Your task to perform on an android device: show emergency info Image 0: 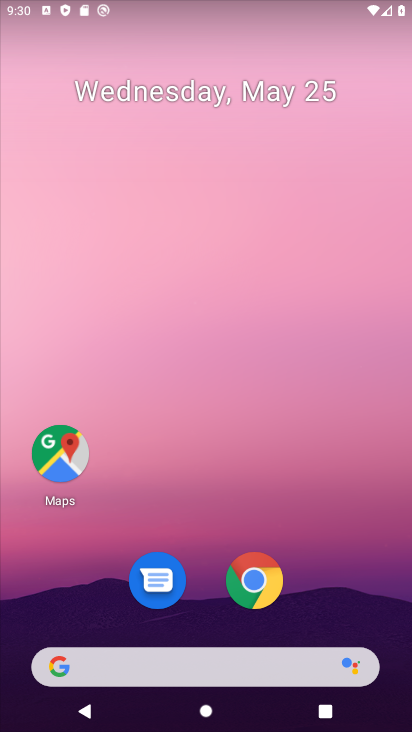
Step 0: drag from (6, 616) to (313, 160)
Your task to perform on an android device: show emergency info Image 1: 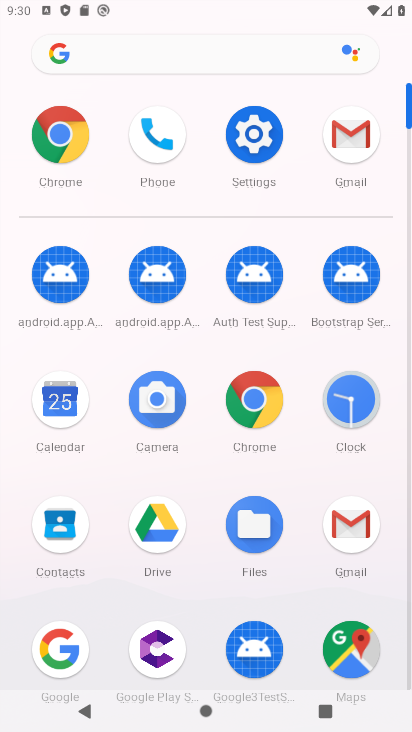
Step 1: click (259, 127)
Your task to perform on an android device: show emergency info Image 2: 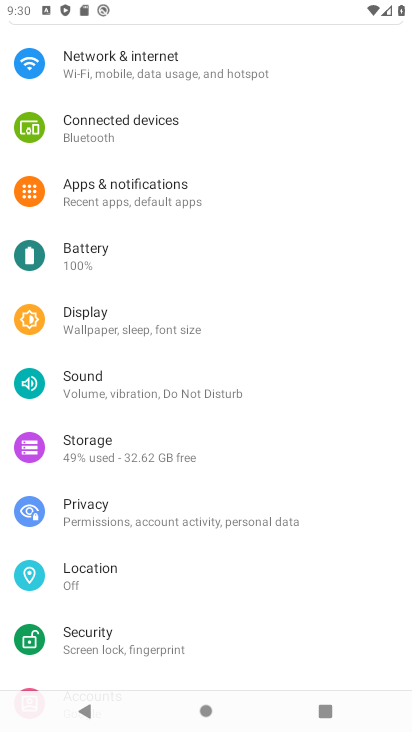
Step 2: drag from (45, 467) to (279, 46)
Your task to perform on an android device: show emergency info Image 3: 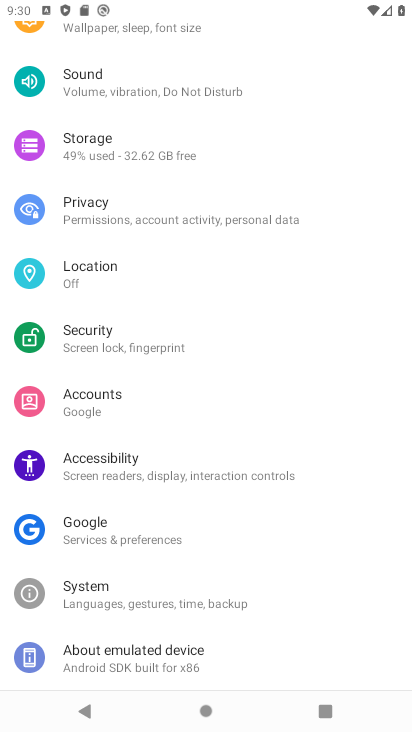
Step 3: drag from (11, 364) to (287, 107)
Your task to perform on an android device: show emergency info Image 4: 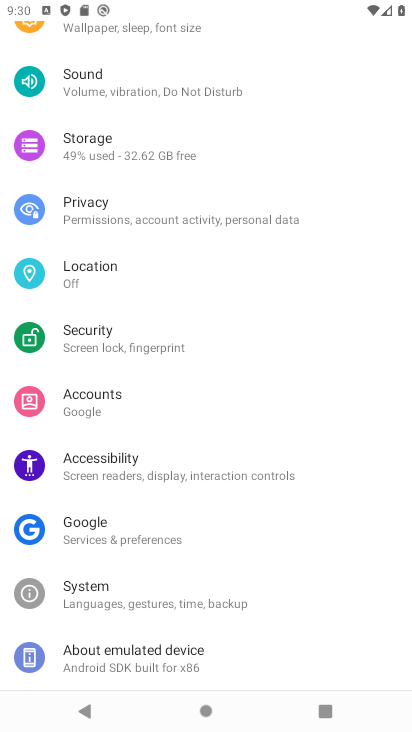
Step 4: click (96, 649)
Your task to perform on an android device: show emergency info Image 5: 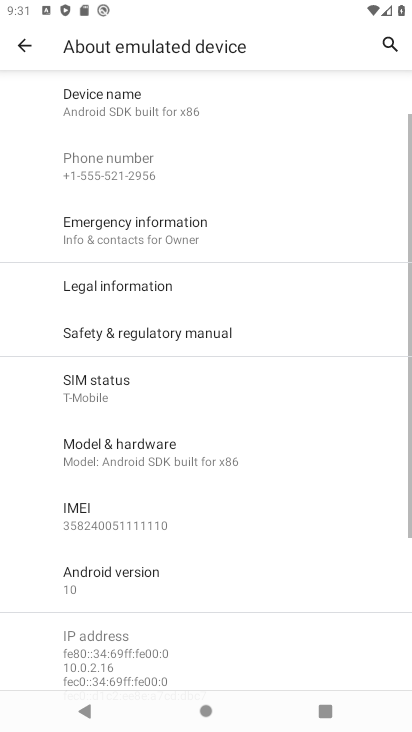
Step 5: click (119, 233)
Your task to perform on an android device: show emergency info Image 6: 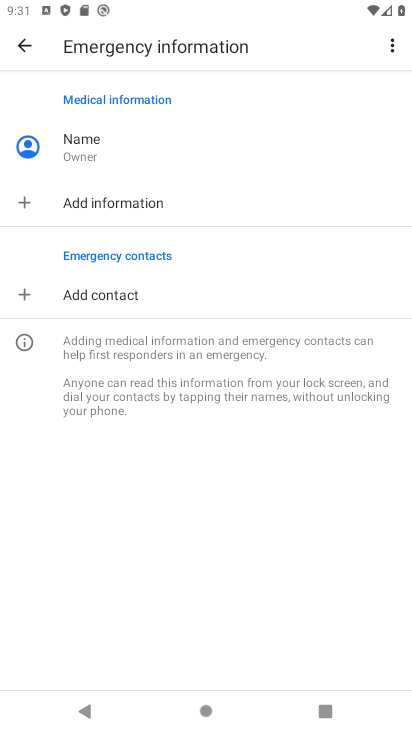
Step 6: task complete